Your task to perform on an android device: turn off sleep mode Image 0: 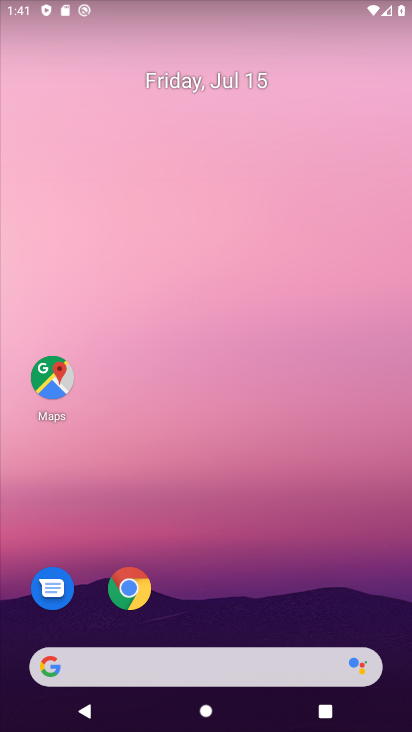
Step 0: drag from (169, 586) to (282, 63)
Your task to perform on an android device: turn off sleep mode Image 1: 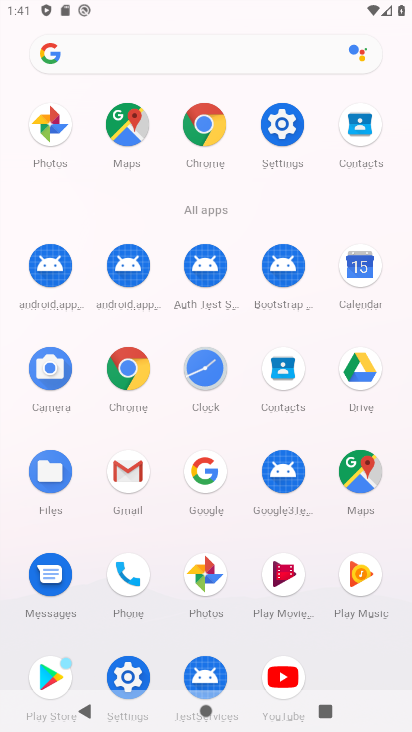
Step 1: click (290, 122)
Your task to perform on an android device: turn off sleep mode Image 2: 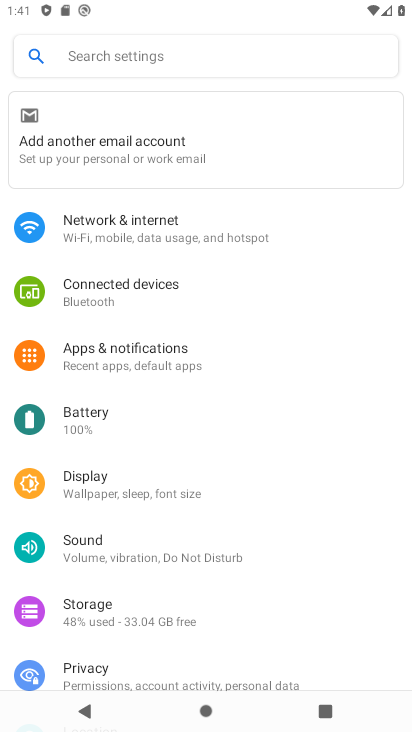
Step 2: click (148, 59)
Your task to perform on an android device: turn off sleep mode Image 3: 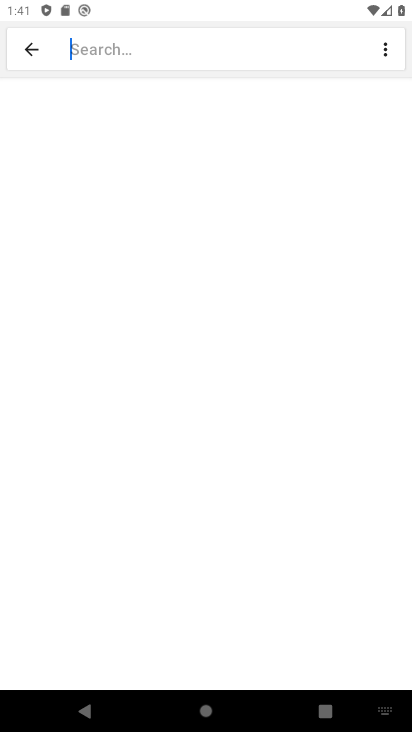
Step 3: type "sleep mode"
Your task to perform on an android device: turn off sleep mode Image 4: 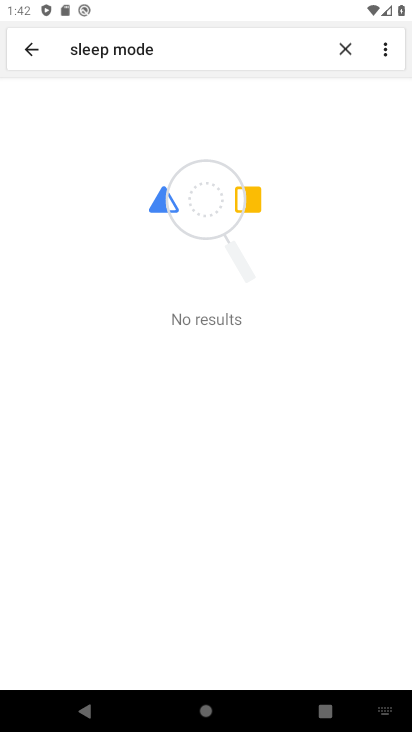
Step 4: task complete